Your task to perform on an android device: Open Youtube and go to the subscriptions tab Image 0: 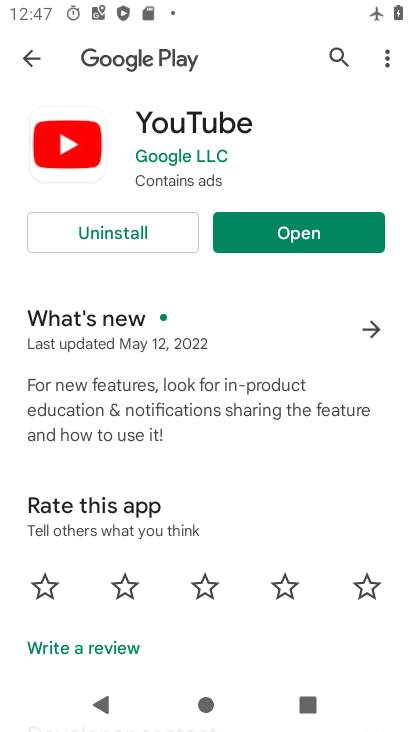
Step 0: task complete